Your task to perform on an android device: open device folders in google photos Image 0: 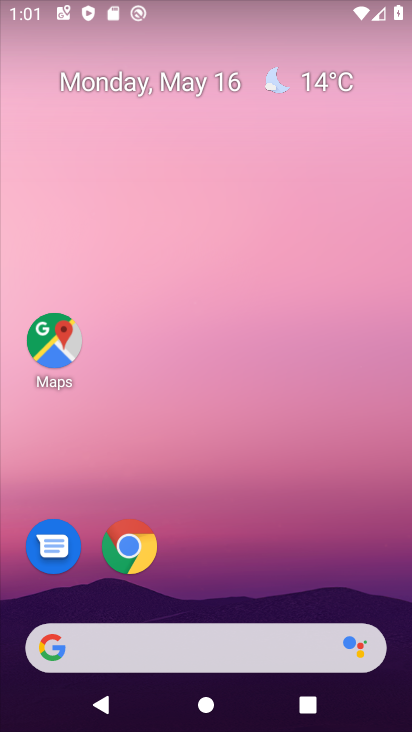
Step 0: drag from (254, 647) to (302, 255)
Your task to perform on an android device: open device folders in google photos Image 1: 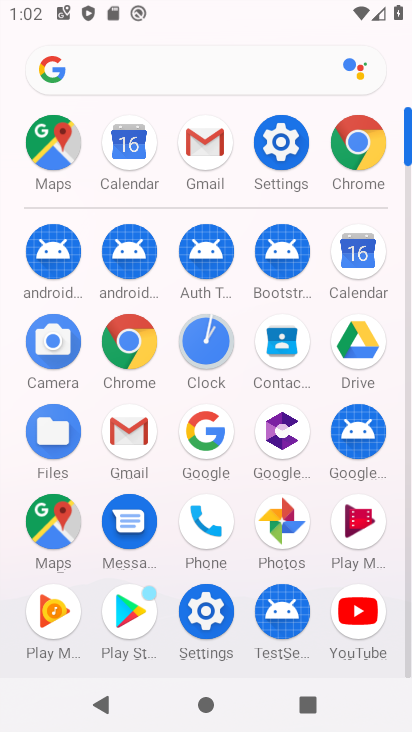
Step 1: click (293, 514)
Your task to perform on an android device: open device folders in google photos Image 2: 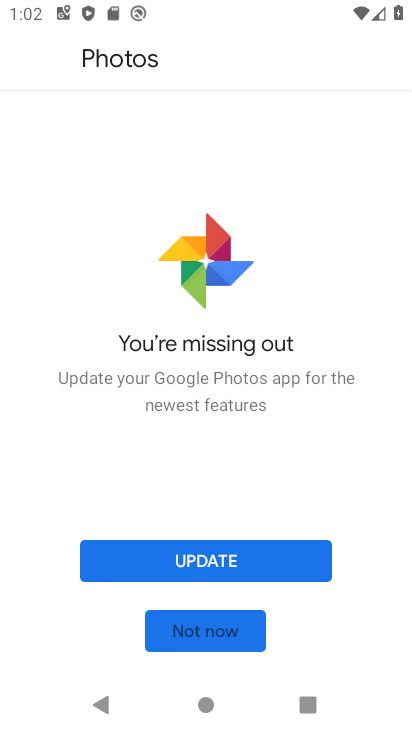
Step 2: click (237, 556)
Your task to perform on an android device: open device folders in google photos Image 3: 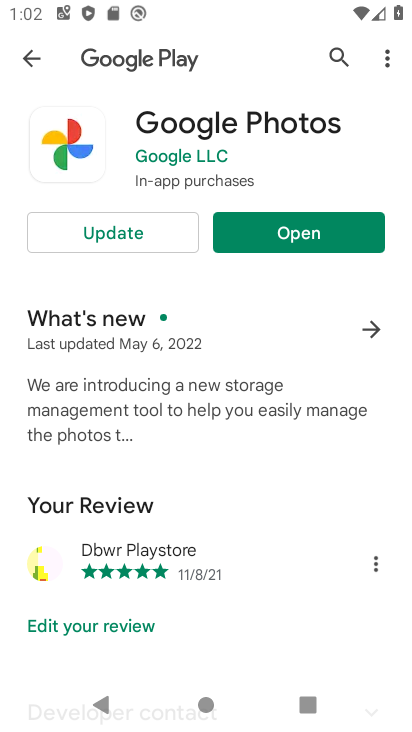
Step 3: click (273, 230)
Your task to perform on an android device: open device folders in google photos Image 4: 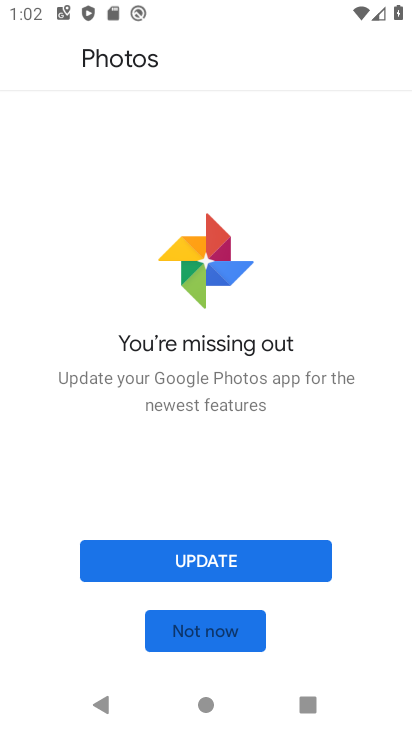
Step 4: click (238, 566)
Your task to perform on an android device: open device folders in google photos Image 5: 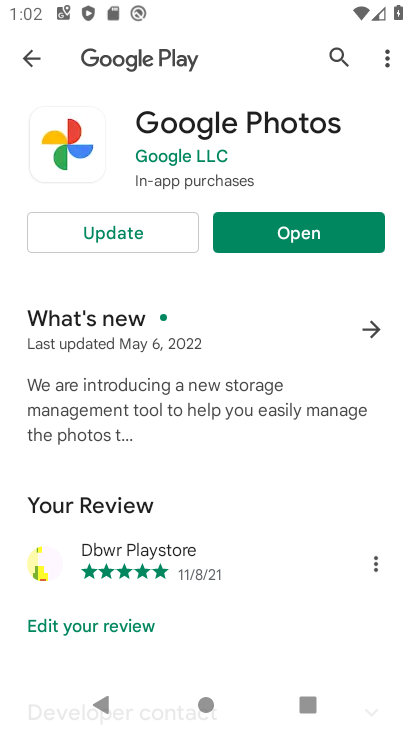
Step 5: click (108, 241)
Your task to perform on an android device: open device folders in google photos Image 6: 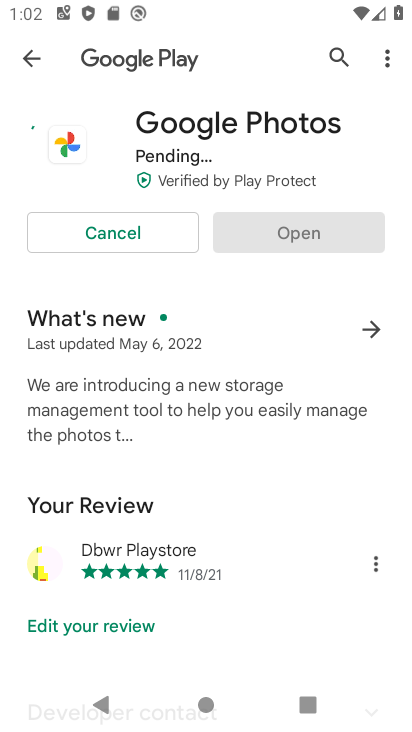
Step 6: click (274, 114)
Your task to perform on an android device: open device folders in google photos Image 7: 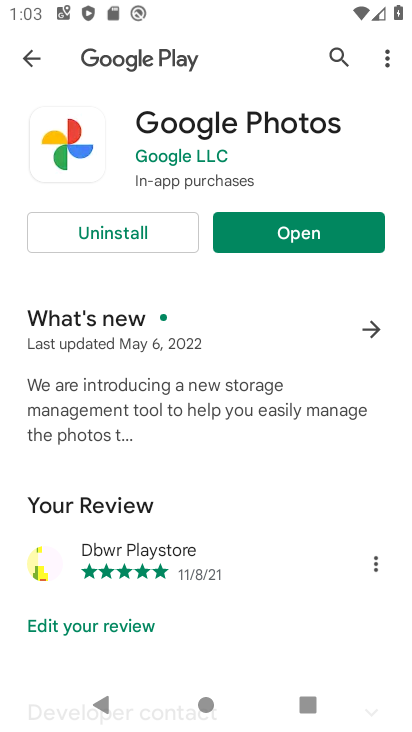
Step 7: click (251, 221)
Your task to perform on an android device: open device folders in google photos Image 8: 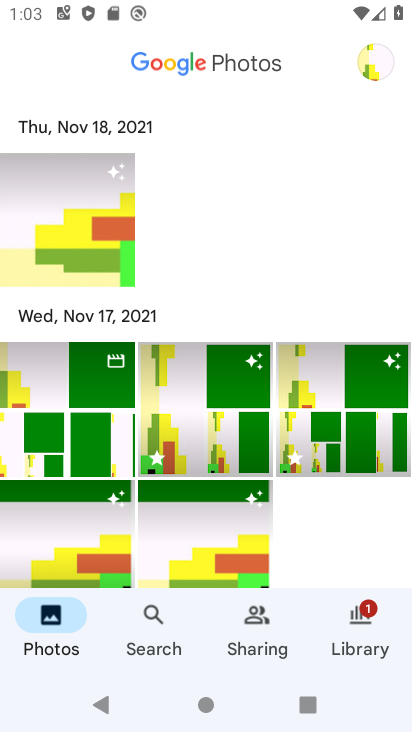
Step 8: click (144, 610)
Your task to perform on an android device: open device folders in google photos Image 9: 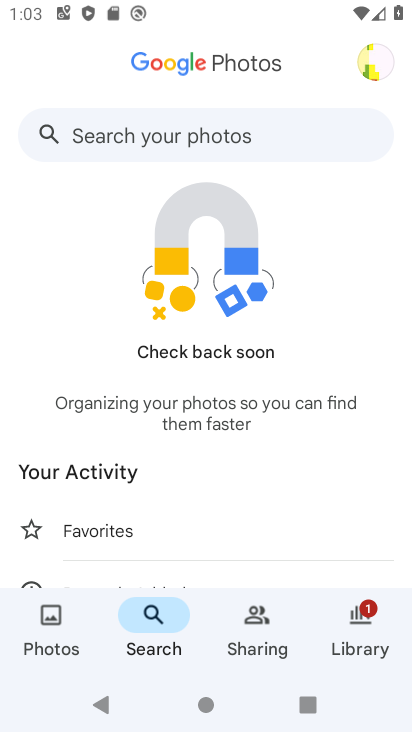
Step 9: click (137, 110)
Your task to perform on an android device: open device folders in google photos Image 10: 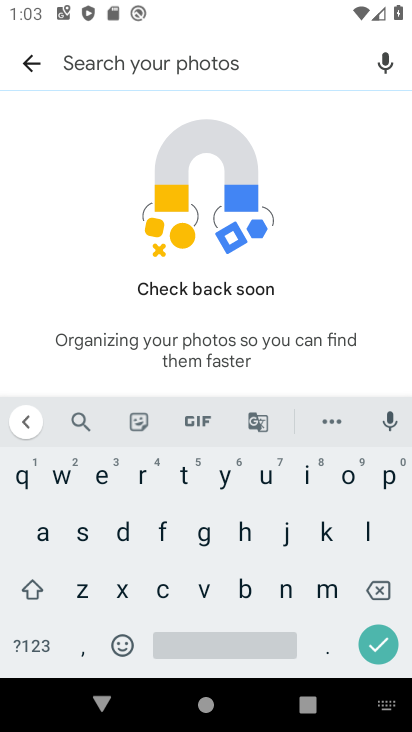
Step 10: click (124, 524)
Your task to perform on an android device: open device folders in google photos Image 11: 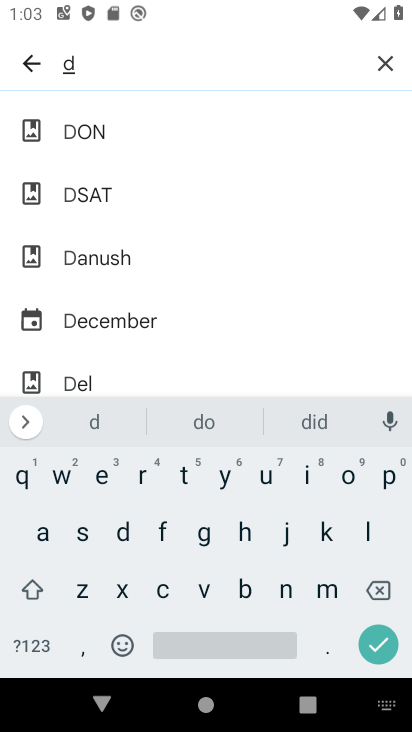
Step 11: click (100, 475)
Your task to perform on an android device: open device folders in google photos Image 12: 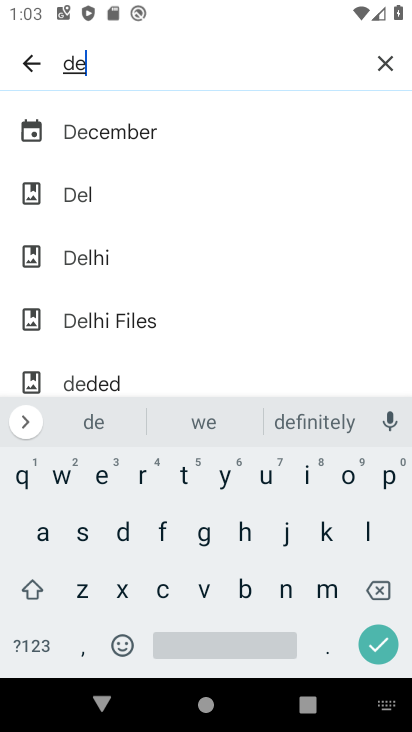
Step 12: click (201, 599)
Your task to perform on an android device: open device folders in google photos Image 13: 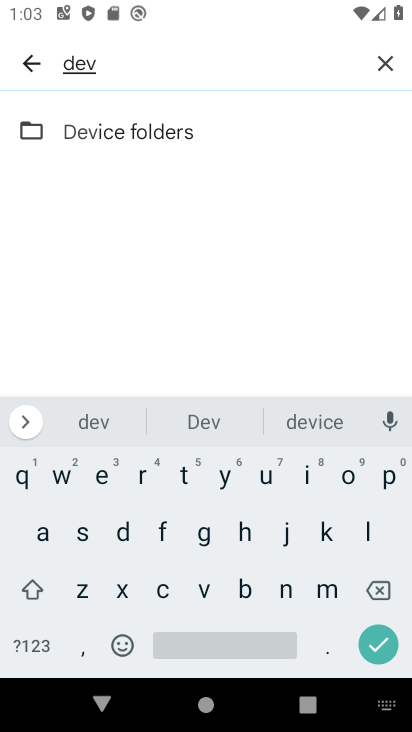
Step 13: click (148, 133)
Your task to perform on an android device: open device folders in google photos Image 14: 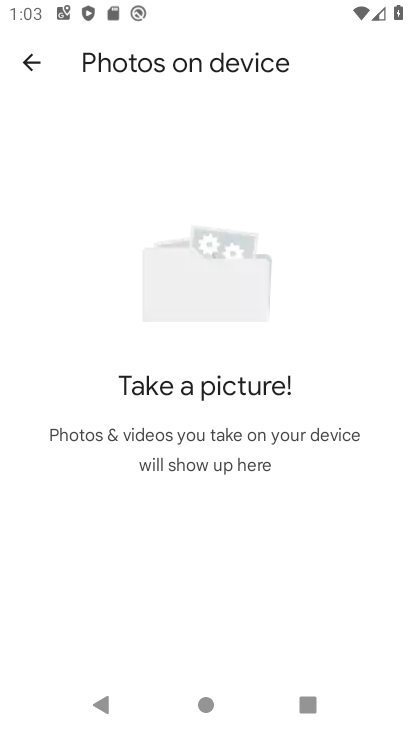
Step 14: task complete